Your task to perform on an android device: turn off airplane mode Image 0: 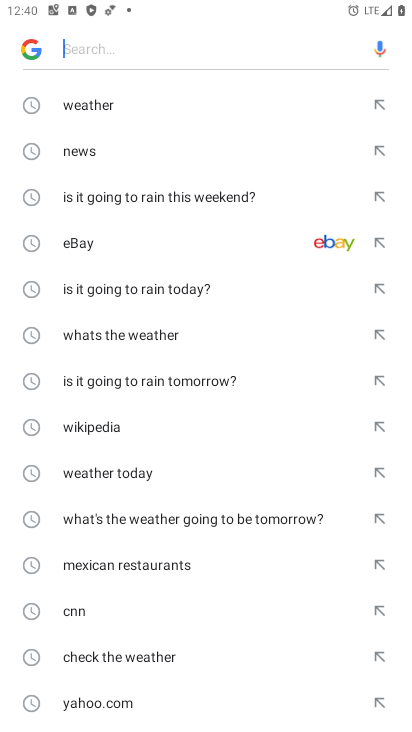
Step 0: click (201, 701)
Your task to perform on an android device: turn off airplane mode Image 1: 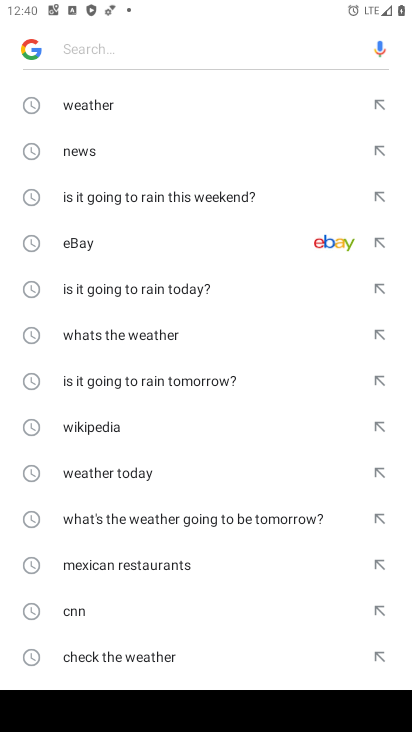
Step 1: press home button
Your task to perform on an android device: turn off airplane mode Image 2: 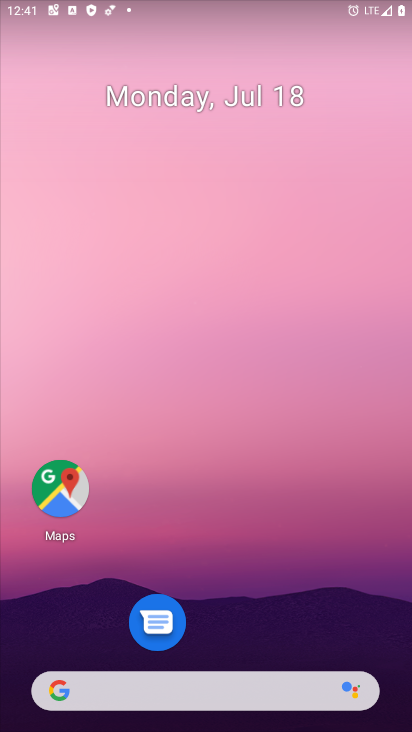
Step 2: drag from (284, 709) to (203, 5)
Your task to perform on an android device: turn off airplane mode Image 3: 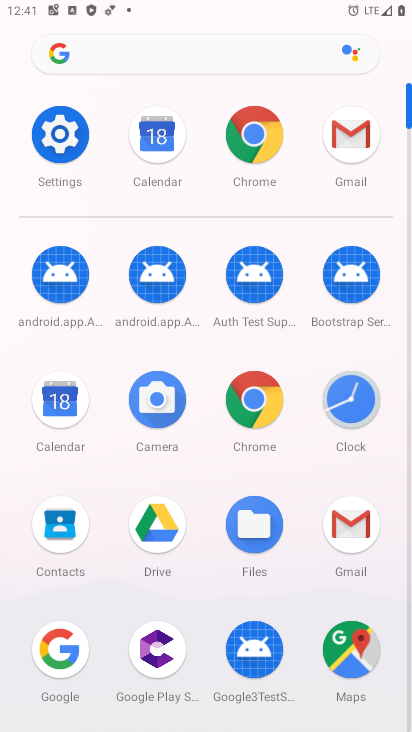
Step 3: click (48, 142)
Your task to perform on an android device: turn off airplane mode Image 4: 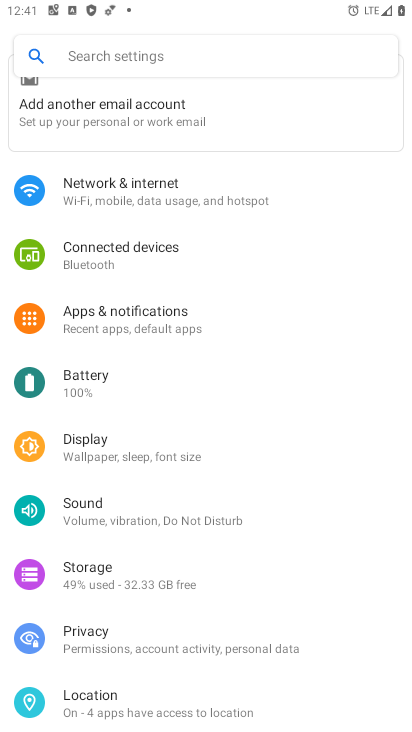
Step 4: click (95, 186)
Your task to perform on an android device: turn off airplane mode Image 5: 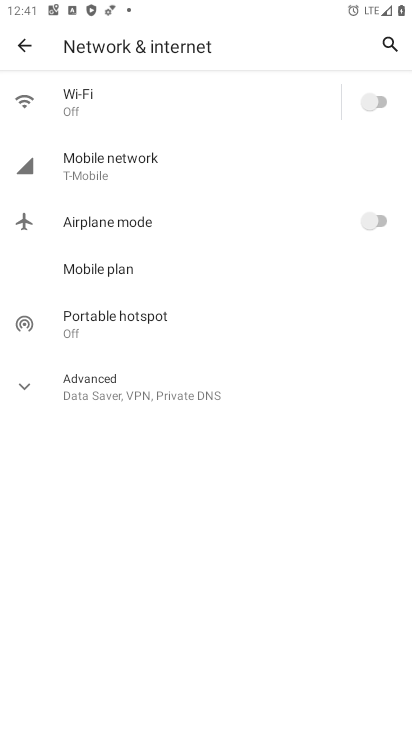
Step 5: task complete